Your task to perform on an android device: open app "Skype" Image 0: 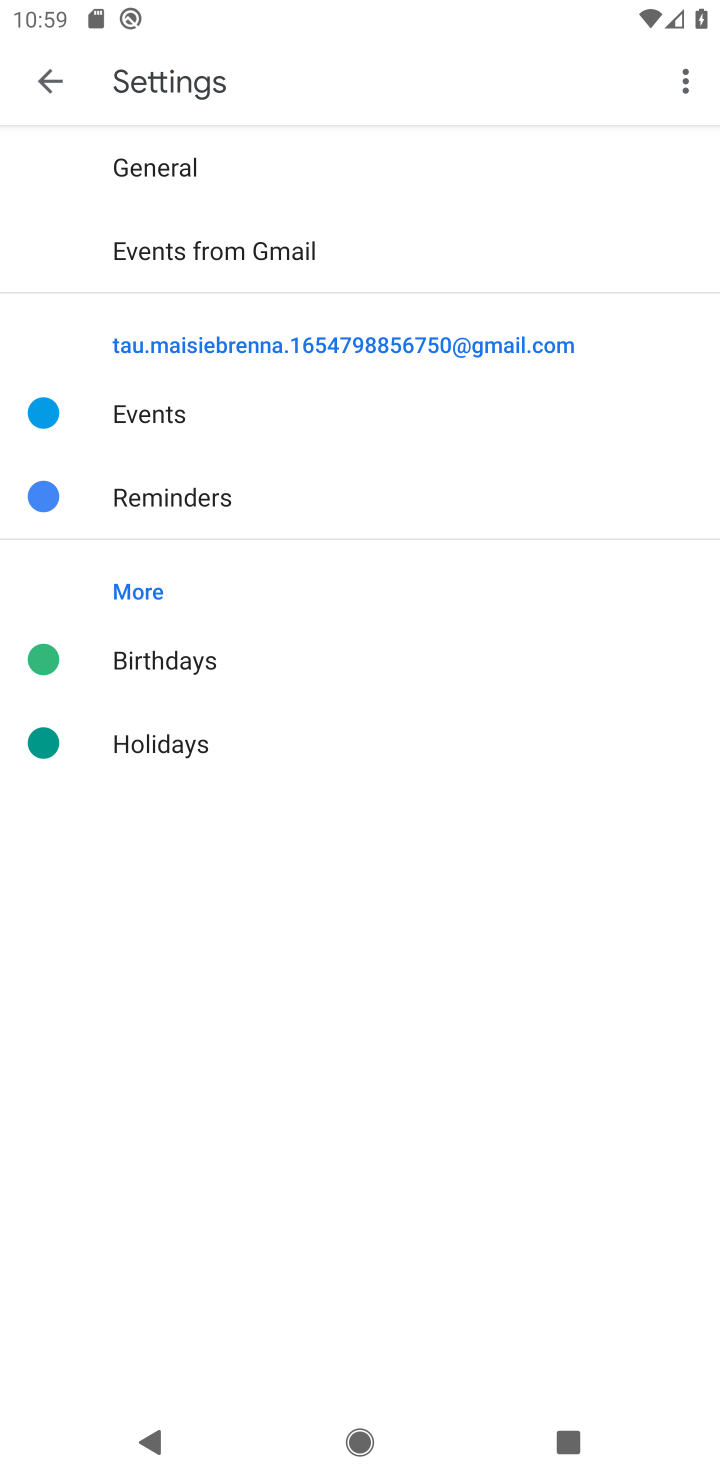
Step 0: press home button
Your task to perform on an android device: open app "Skype" Image 1: 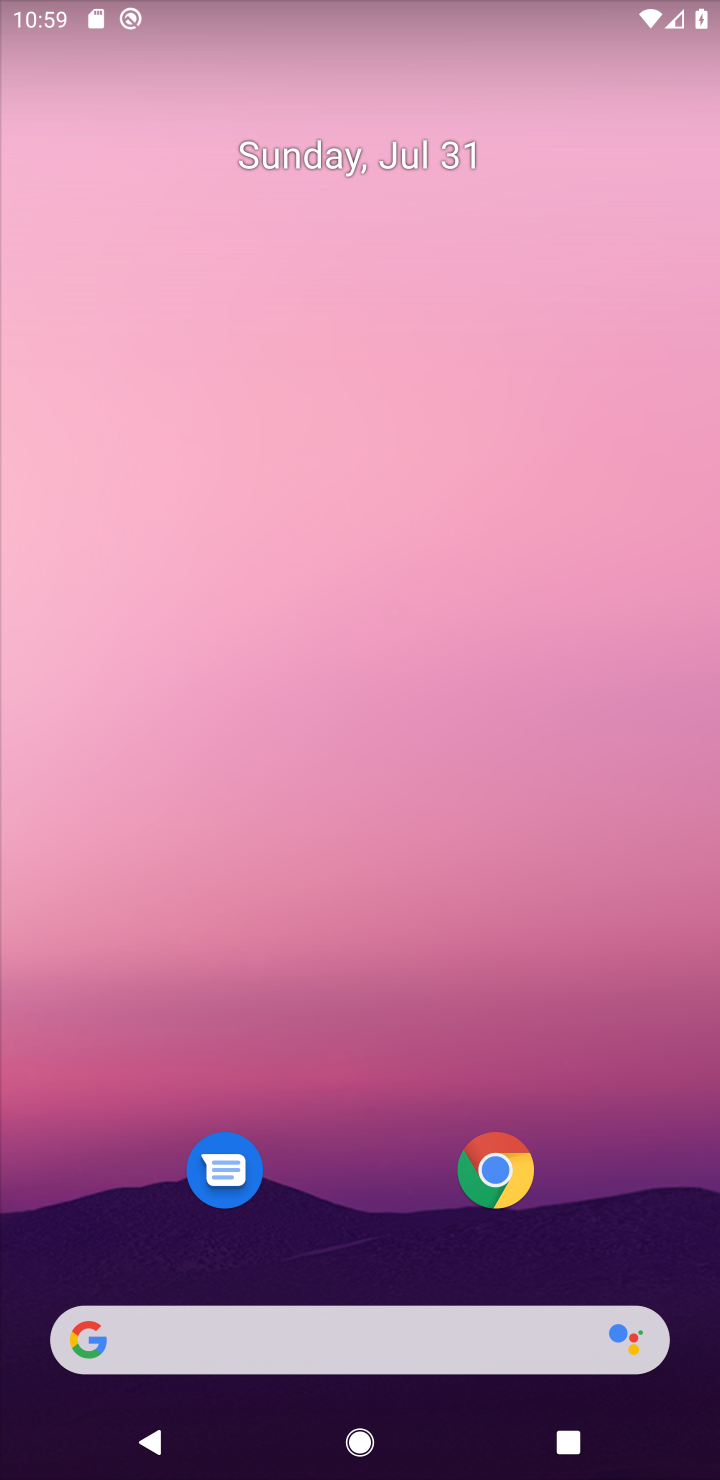
Step 1: drag from (647, 1133) to (138, 48)
Your task to perform on an android device: open app "Skype" Image 2: 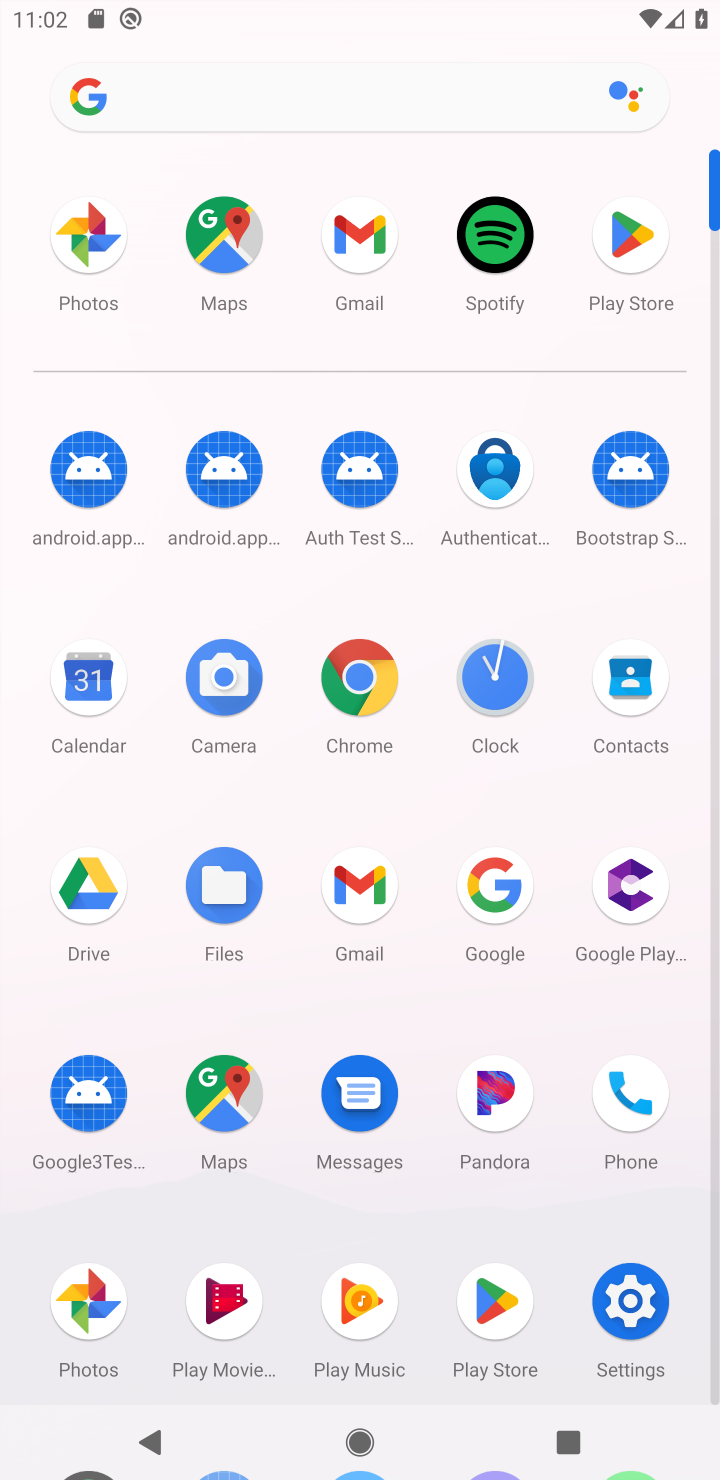
Step 2: click (685, 230)
Your task to perform on an android device: open app "Skype" Image 3: 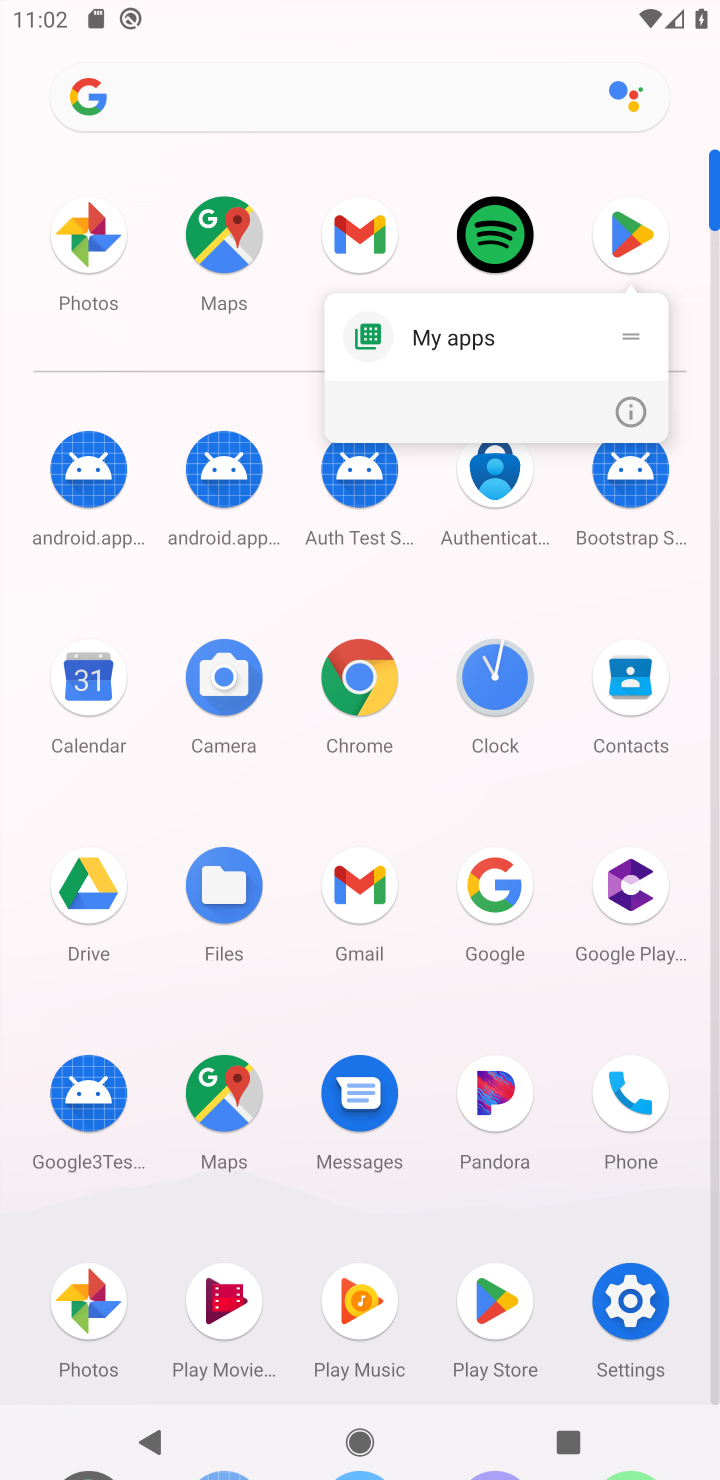
Step 3: click (645, 237)
Your task to perform on an android device: open app "Skype" Image 4: 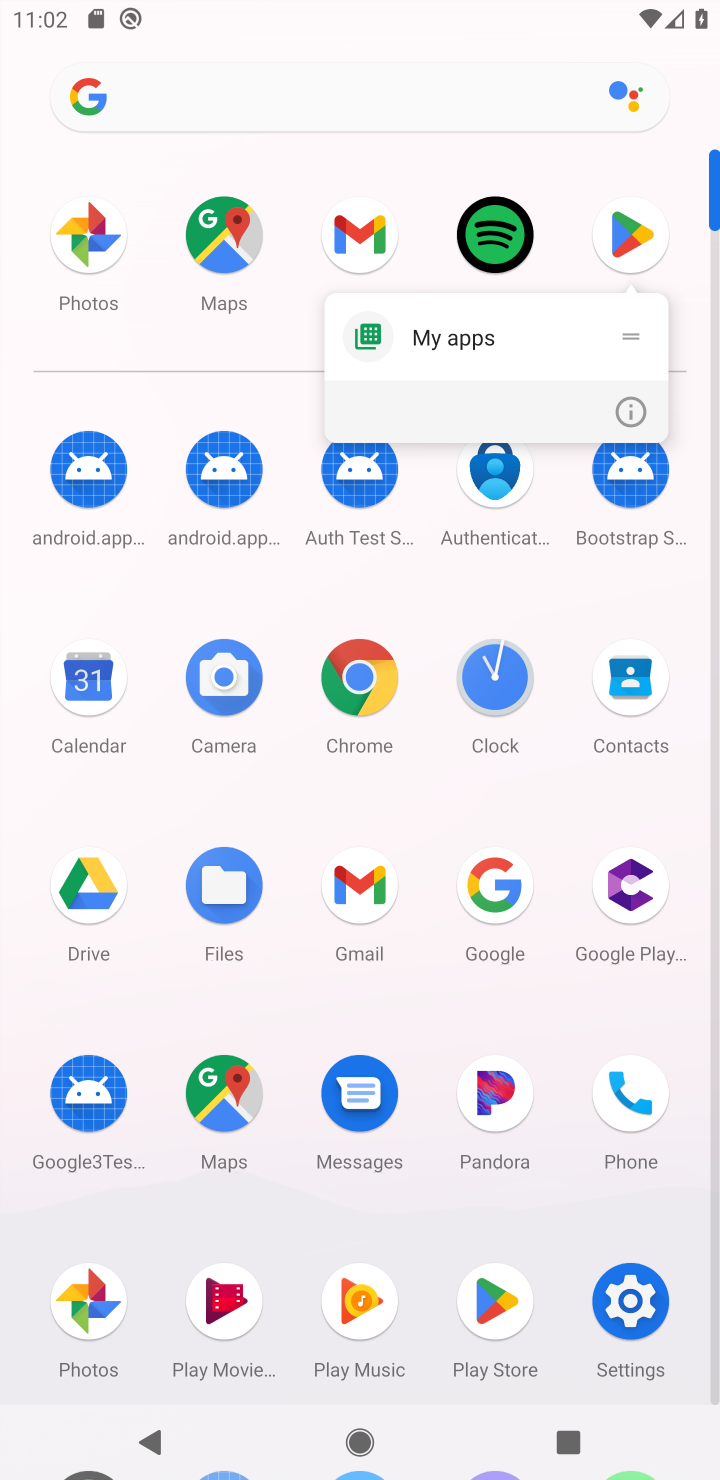
Step 4: click (650, 221)
Your task to perform on an android device: open app "Skype" Image 5: 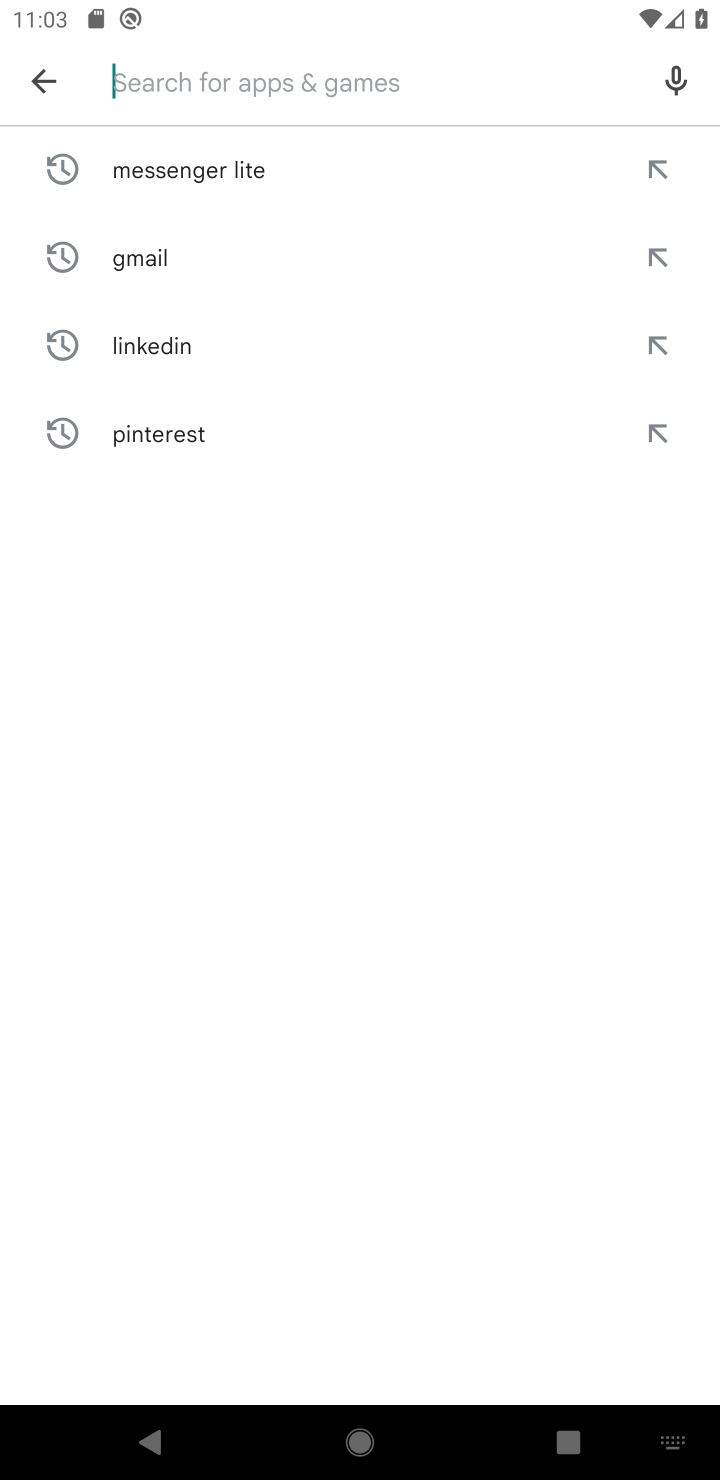
Step 5: type "Skype"
Your task to perform on an android device: open app "Skype" Image 6: 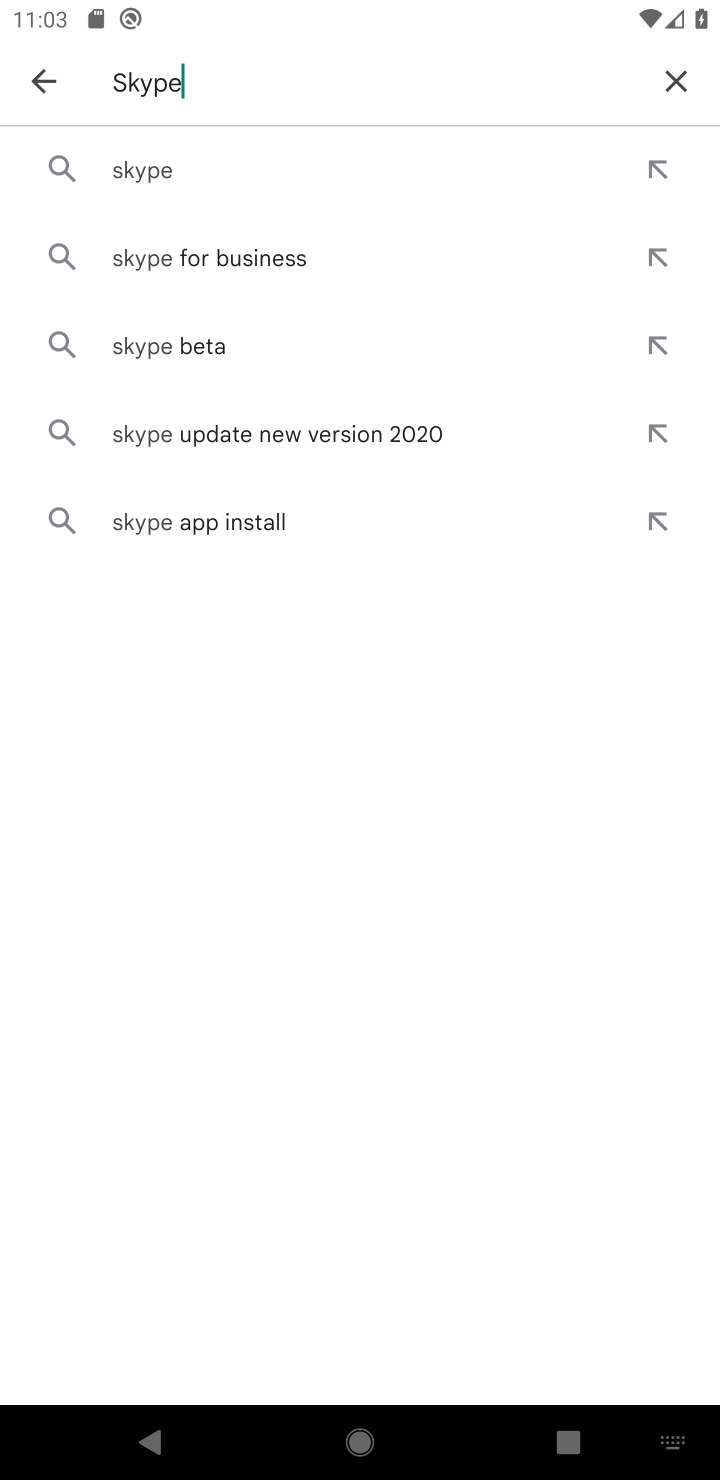
Step 6: click (175, 146)
Your task to perform on an android device: open app "Skype" Image 7: 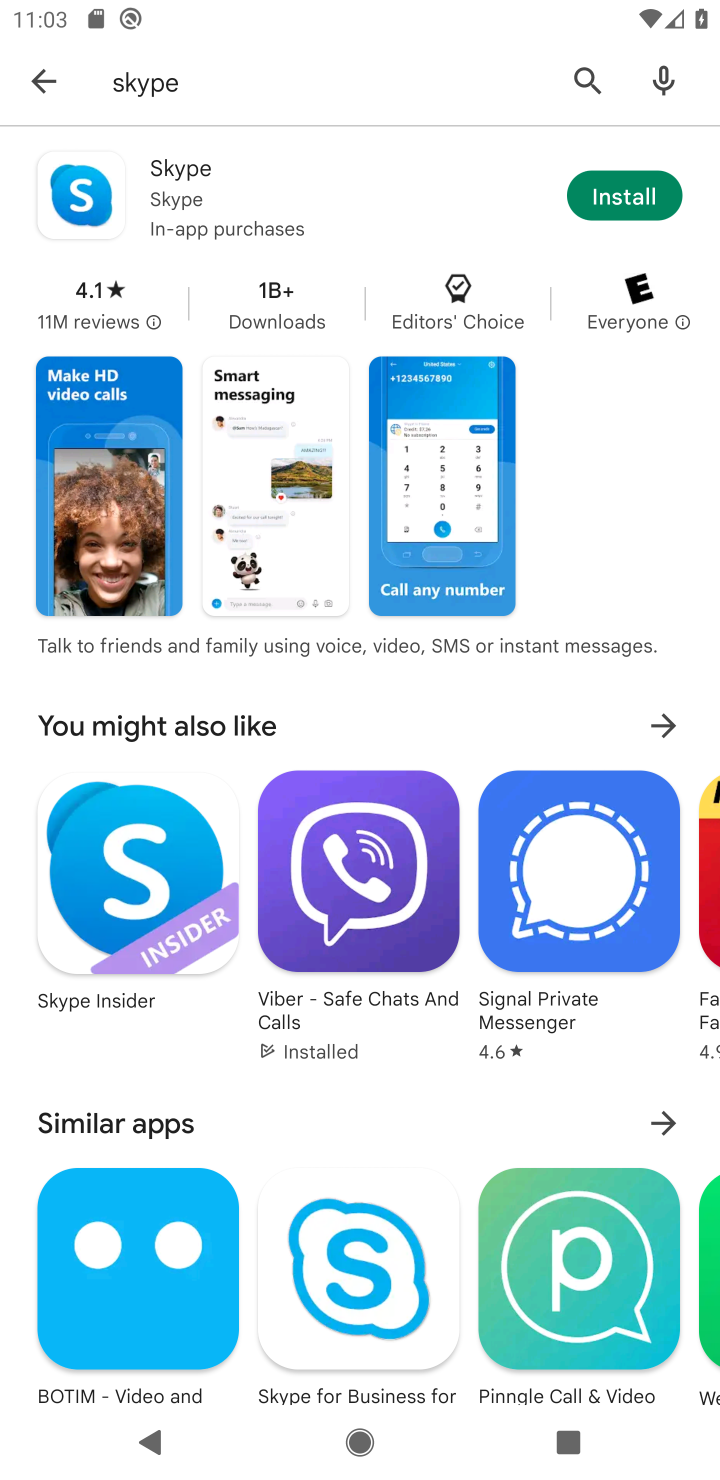
Step 7: task complete